Your task to perform on an android device: set default search engine in the chrome app Image 0: 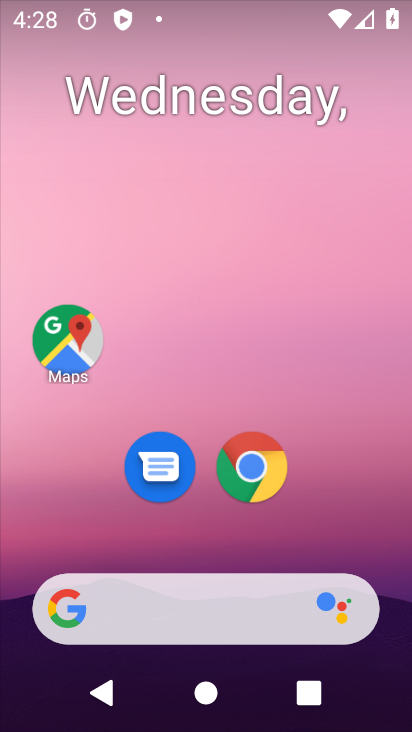
Step 0: click (255, 472)
Your task to perform on an android device: set default search engine in the chrome app Image 1: 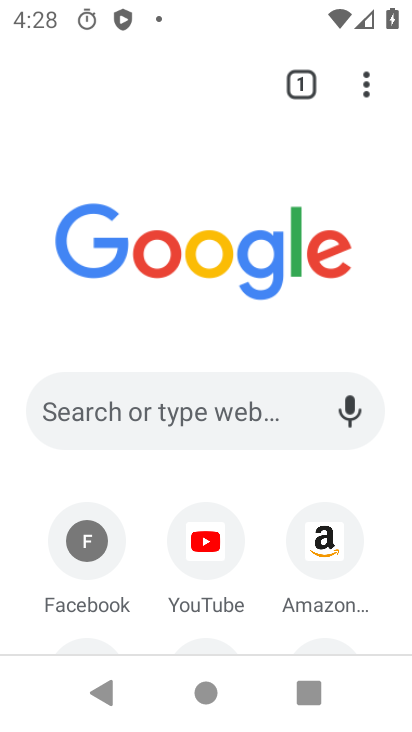
Step 1: click (365, 83)
Your task to perform on an android device: set default search engine in the chrome app Image 2: 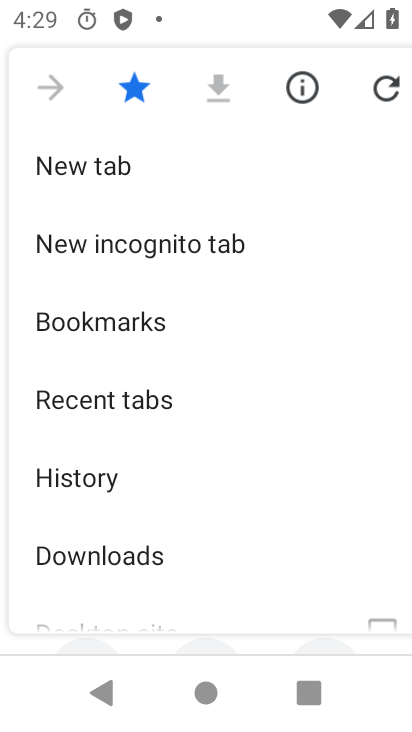
Step 2: drag from (233, 572) to (227, 213)
Your task to perform on an android device: set default search engine in the chrome app Image 3: 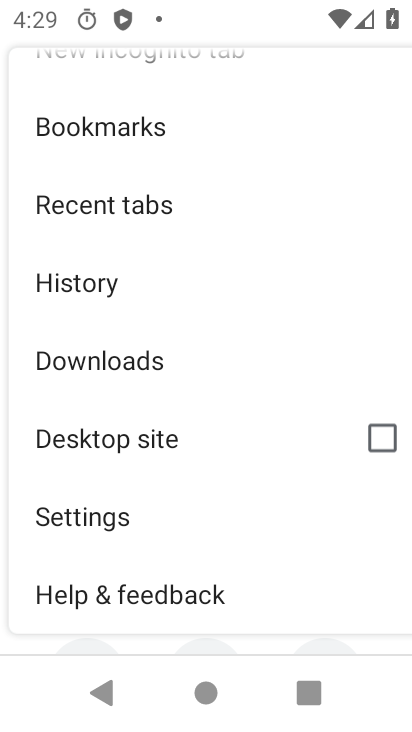
Step 3: drag from (191, 583) to (175, 304)
Your task to perform on an android device: set default search engine in the chrome app Image 4: 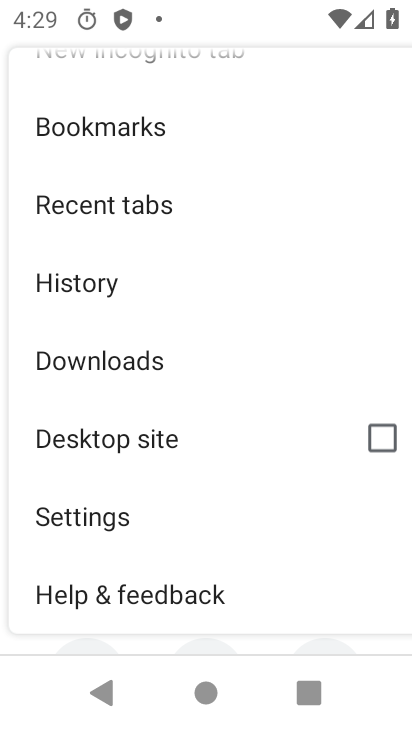
Step 4: drag from (226, 506) to (209, 294)
Your task to perform on an android device: set default search engine in the chrome app Image 5: 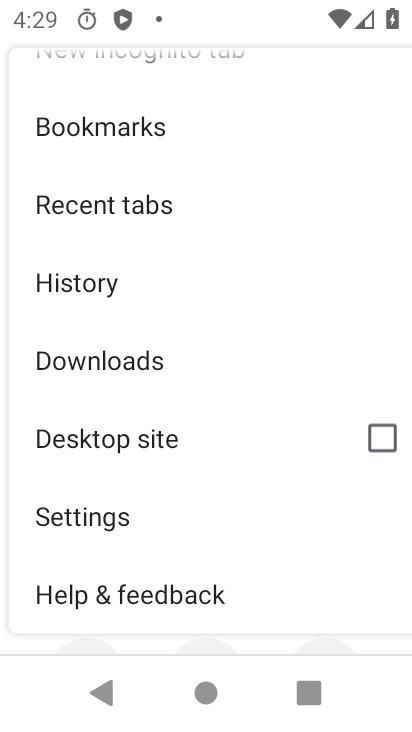
Step 5: click (102, 514)
Your task to perform on an android device: set default search engine in the chrome app Image 6: 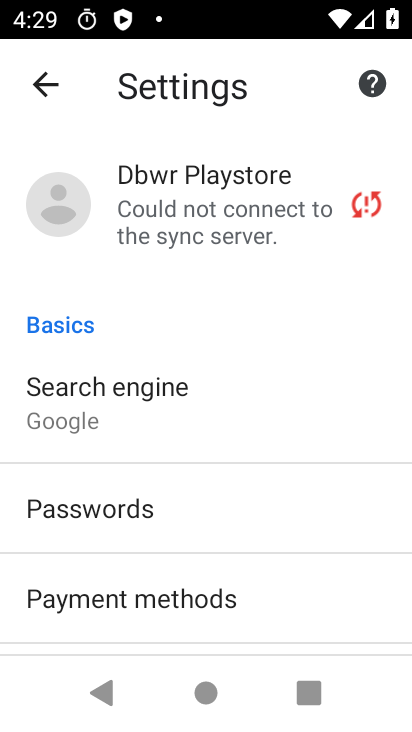
Step 6: click (116, 392)
Your task to perform on an android device: set default search engine in the chrome app Image 7: 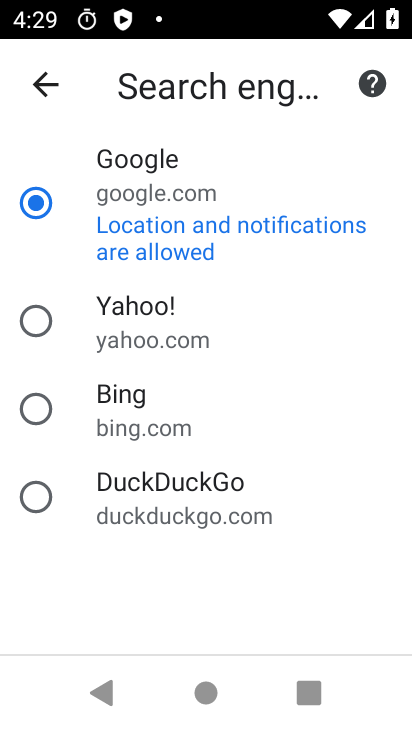
Step 7: task complete